Your task to perform on an android device: toggle pop-ups in chrome Image 0: 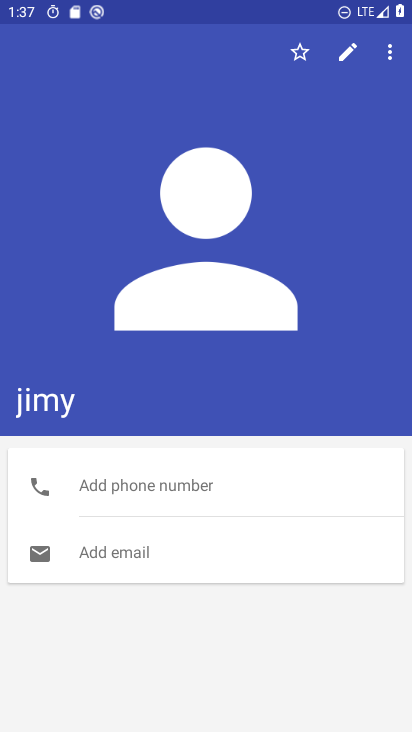
Step 0: press home button
Your task to perform on an android device: toggle pop-ups in chrome Image 1: 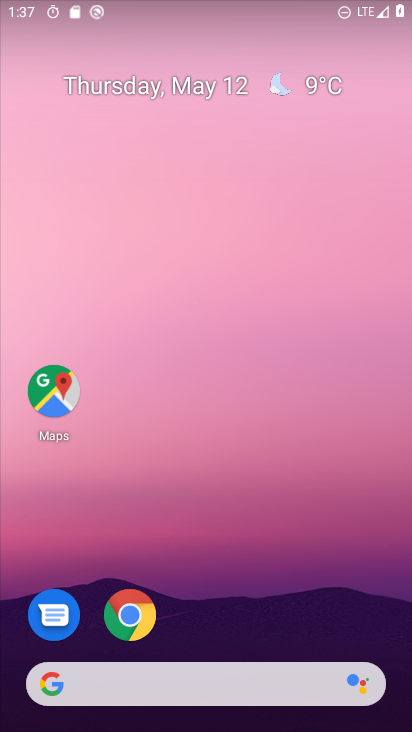
Step 1: drag from (311, 572) to (188, 126)
Your task to perform on an android device: toggle pop-ups in chrome Image 2: 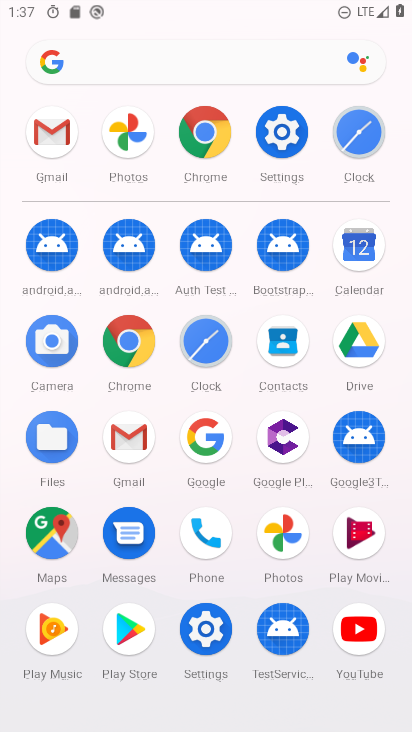
Step 2: click (138, 330)
Your task to perform on an android device: toggle pop-ups in chrome Image 3: 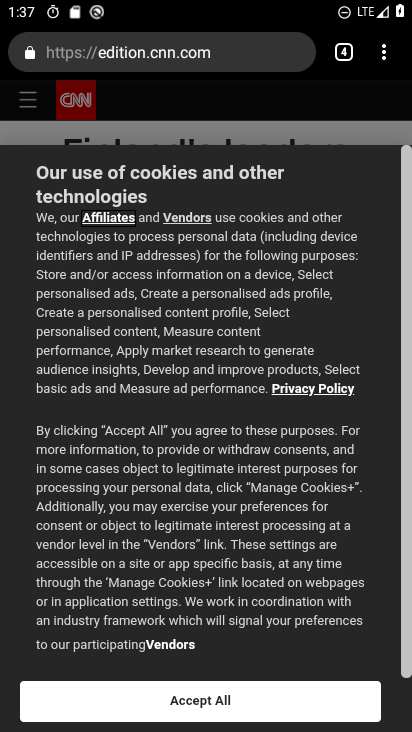
Step 3: drag from (384, 49) to (229, 581)
Your task to perform on an android device: toggle pop-ups in chrome Image 4: 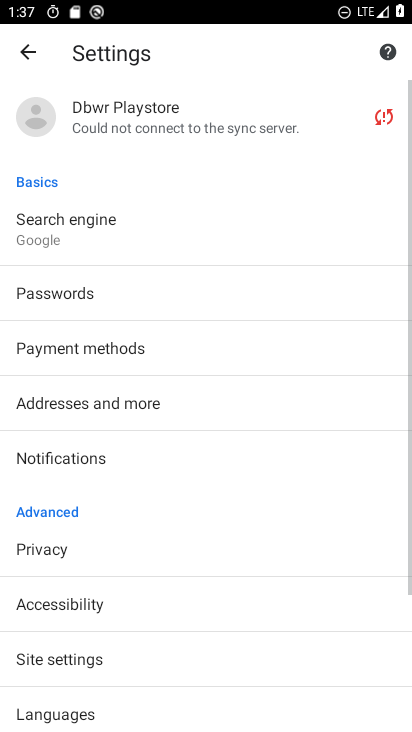
Step 4: drag from (186, 594) to (207, 240)
Your task to perform on an android device: toggle pop-ups in chrome Image 5: 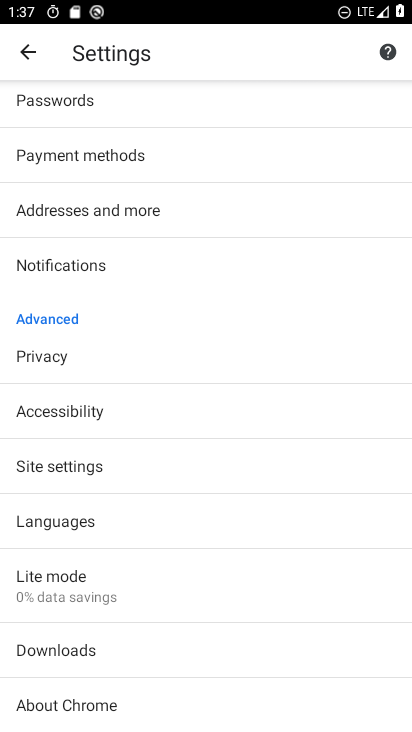
Step 5: click (68, 471)
Your task to perform on an android device: toggle pop-ups in chrome Image 6: 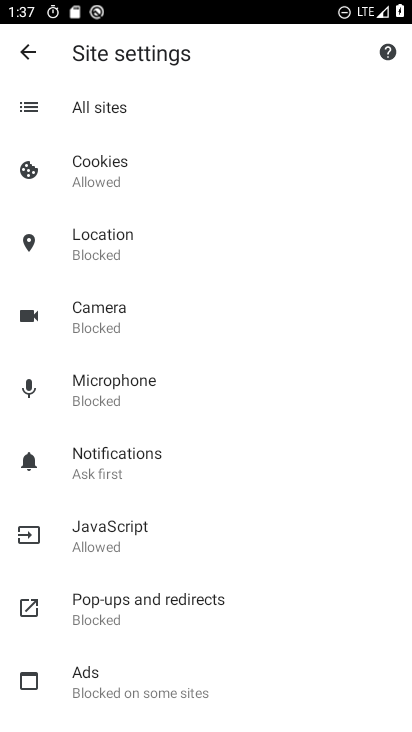
Step 6: click (183, 605)
Your task to perform on an android device: toggle pop-ups in chrome Image 7: 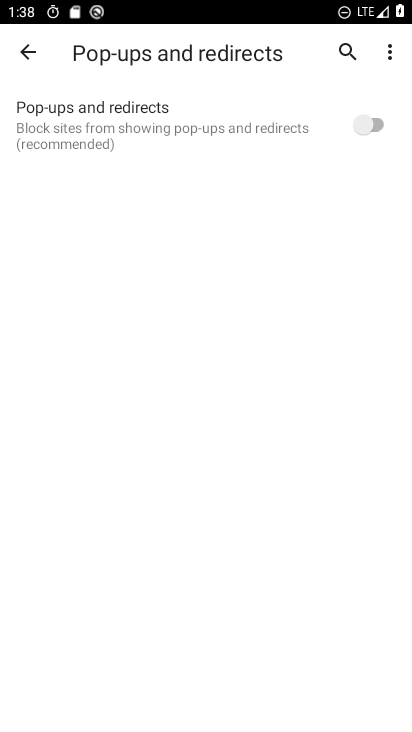
Step 7: click (350, 137)
Your task to perform on an android device: toggle pop-ups in chrome Image 8: 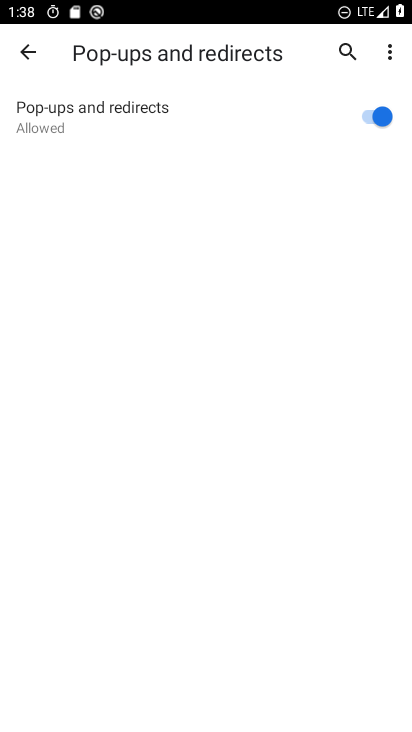
Step 8: task complete